Your task to perform on an android device: check the backup settings in the google photos Image 0: 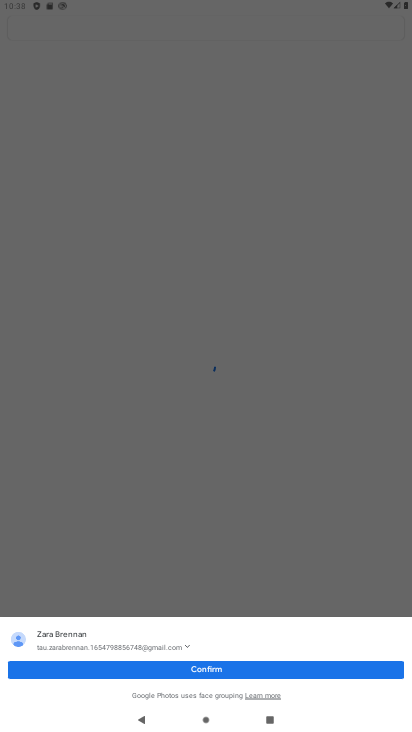
Step 0: press home button
Your task to perform on an android device: check the backup settings in the google photos Image 1: 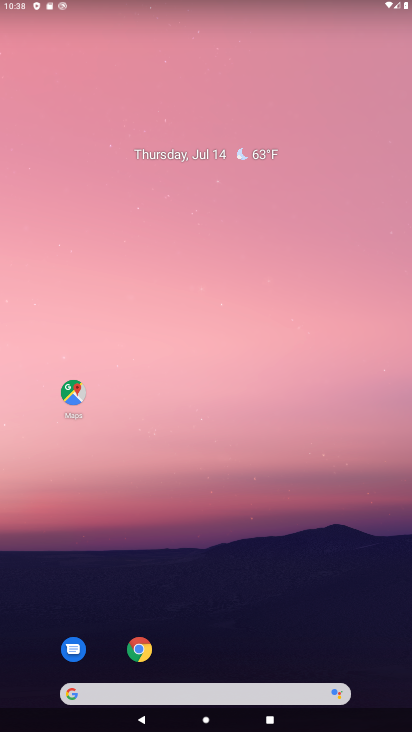
Step 1: drag from (293, 510) to (263, 62)
Your task to perform on an android device: check the backup settings in the google photos Image 2: 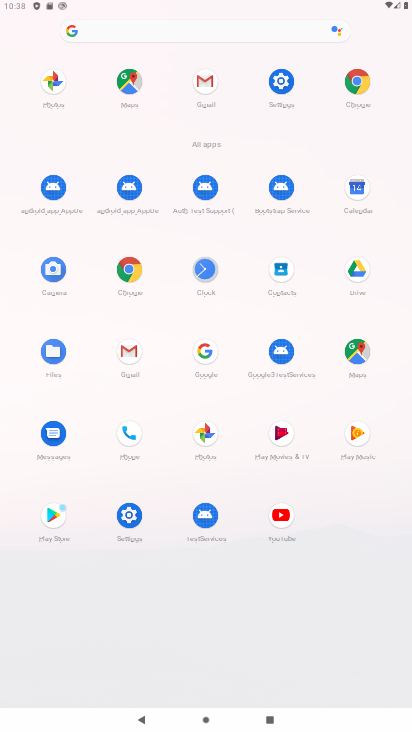
Step 2: click (195, 433)
Your task to perform on an android device: check the backup settings in the google photos Image 3: 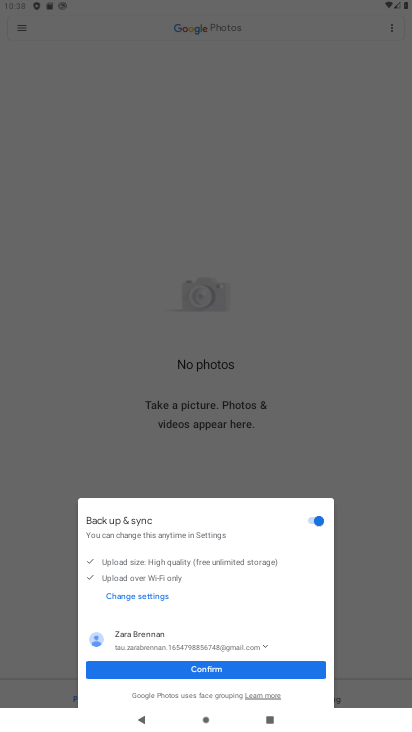
Step 3: click (212, 662)
Your task to perform on an android device: check the backup settings in the google photos Image 4: 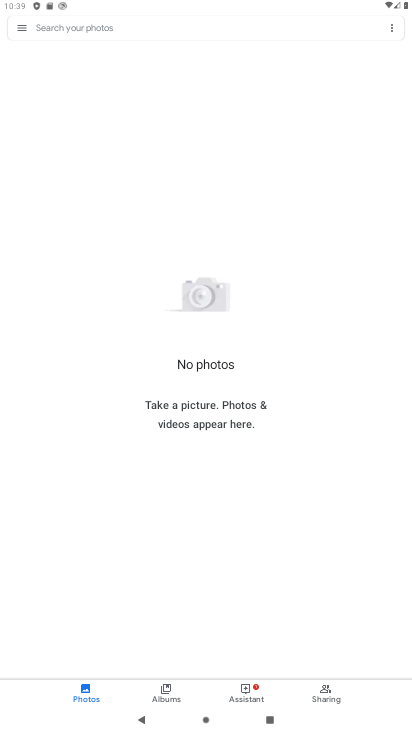
Step 4: click (22, 27)
Your task to perform on an android device: check the backup settings in the google photos Image 5: 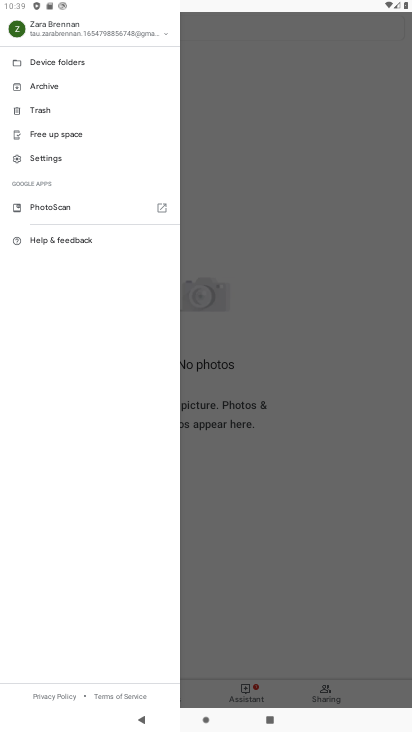
Step 5: click (46, 149)
Your task to perform on an android device: check the backup settings in the google photos Image 6: 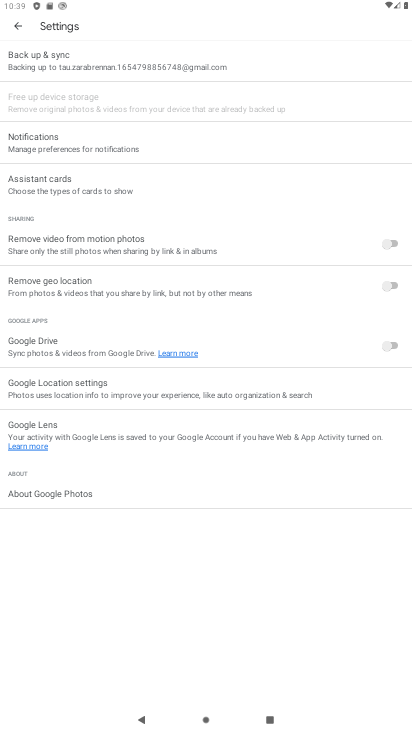
Step 6: click (62, 61)
Your task to perform on an android device: check the backup settings in the google photos Image 7: 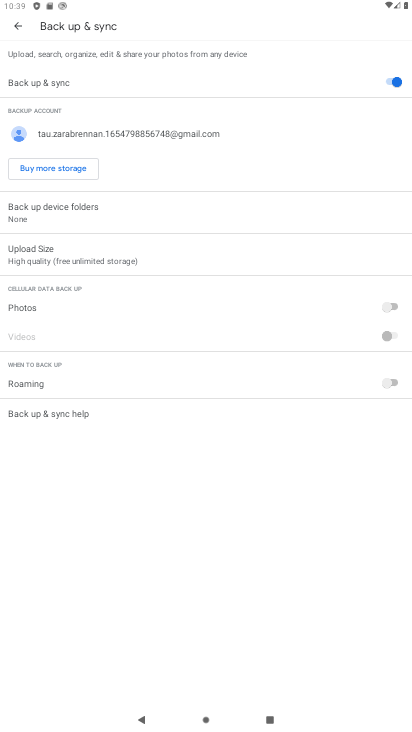
Step 7: task complete